Your task to perform on an android device: Do I have any events this weekend? Image 0: 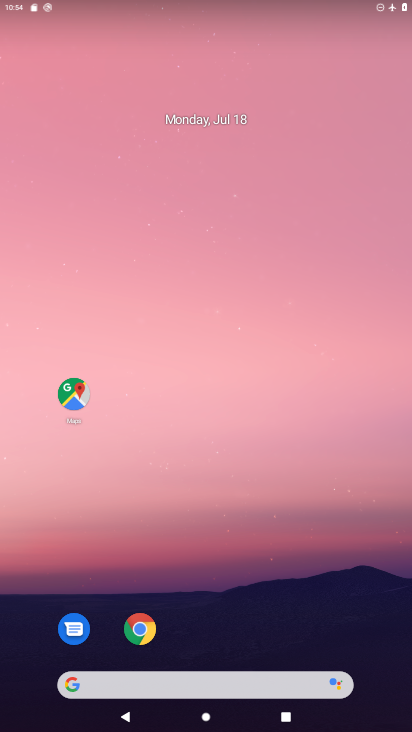
Step 0: drag from (264, 305) to (241, 117)
Your task to perform on an android device: Do I have any events this weekend? Image 1: 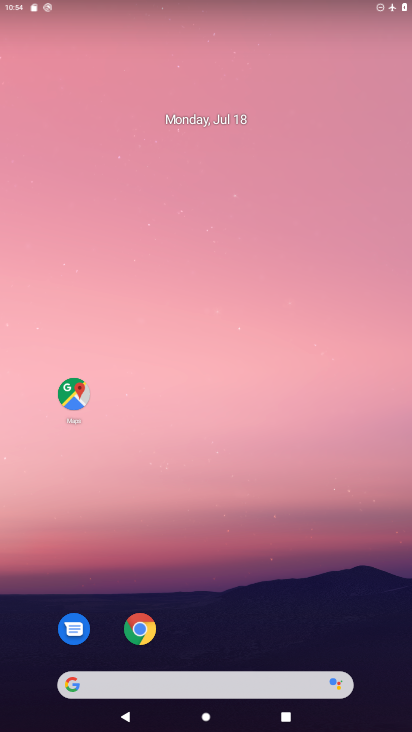
Step 1: drag from (294, 592) to (261, 29)
Your task to perform on an android device: Do I have any events this weekend? Image 2: 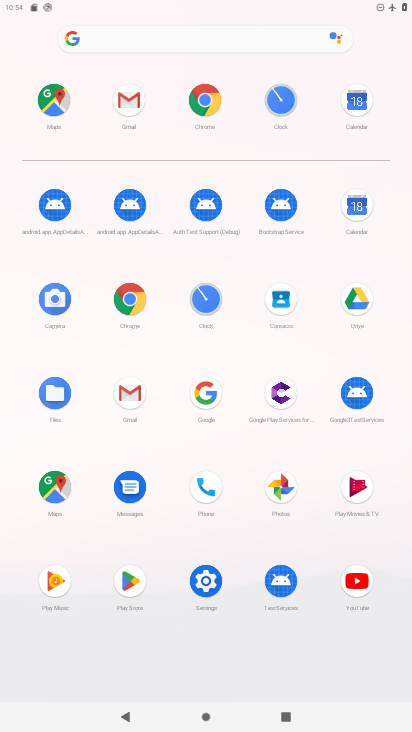
Step 2: click (357, 207)
Your task to perform on an android device: Do I have any events this weekend? Image 3: 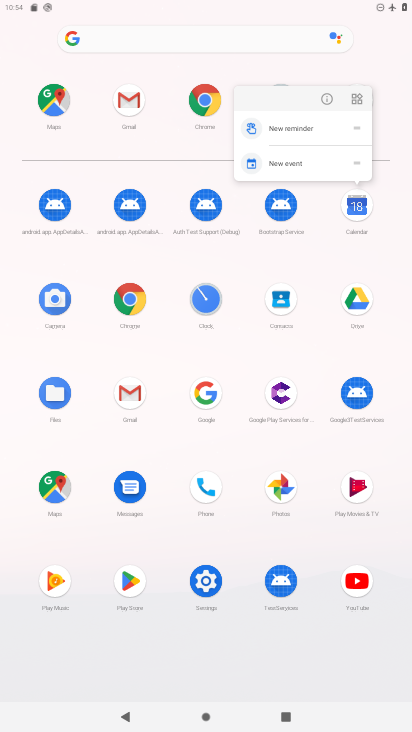
Step 3: click (357, 207)
Your task to perform on an android device: Do I have any events this weekend? Image 4: 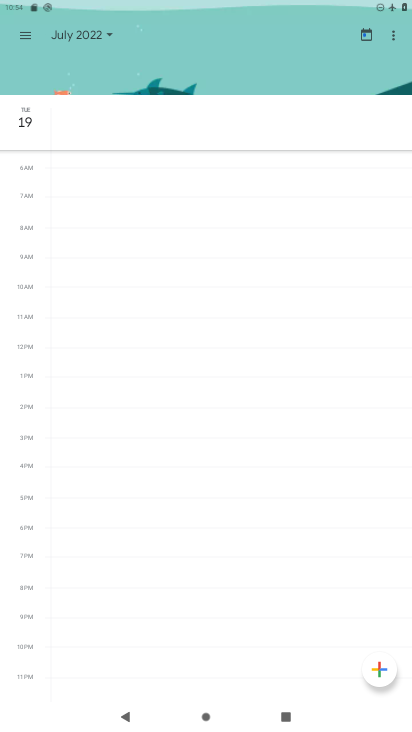
Step 4: click (61, 33)
Your task to perform on an android device: Do I have any events this weekend? Image 5: 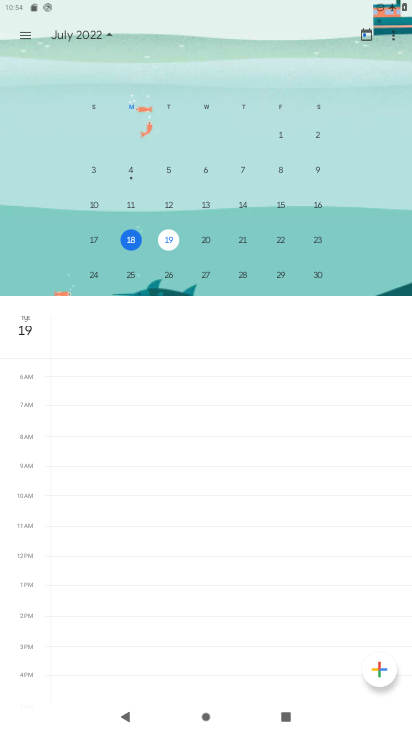
Step 5: click (316, 245)
Your task to perform on an android device: Do I have any events this weekend? Image 6: 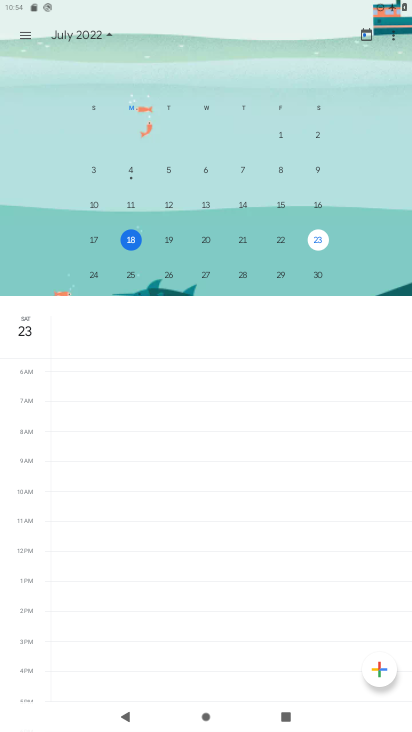
Step 6: task complete